Your task to perform on an android device: What's the price of the Galaxy phone on eBay? Image 0: 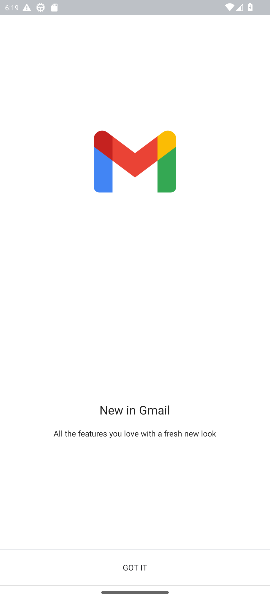
Step 0: click (140, 568)
Your task to perform on an android device: What's the price of the Galaxy phone on eBay? Image 1: 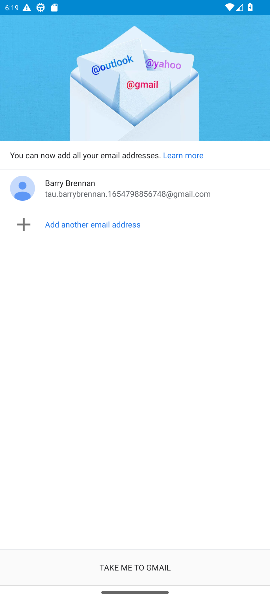
Step 1: click (139, 567)
Your task to perform on an android device: What's the price of the Galaxy phone on eBay? Image 2: 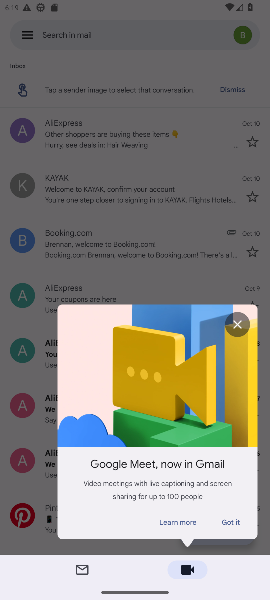
Step 2: click (240, 321)
Your task to perform on an android device: What's the price of the Galaxy phone on eBay? Image 3: 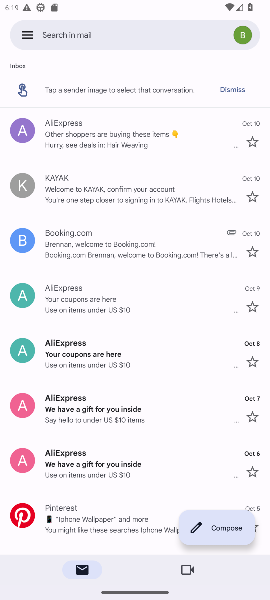
Step 3: press back button
Your task to perform on an android device: What's the price of the Galaxy phone on eBay? Image 4: 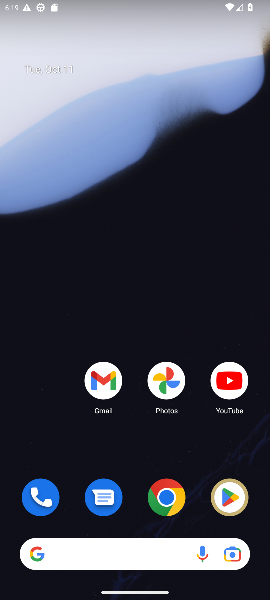
Step 4: click (118, 549)
Your task to perform on an android device: What's the price of the Galaxy phone on eBay? Image 5: 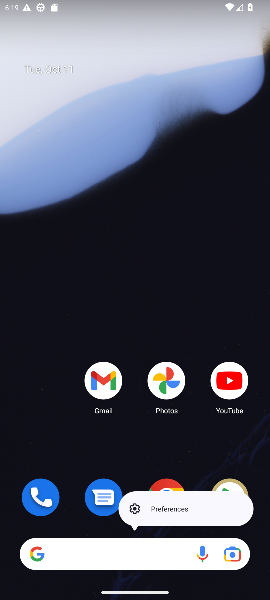
Step 5: click (84, 553)
Your task to perform on an android device: What's the price of the Galaxy phone on eBay? Image 6: 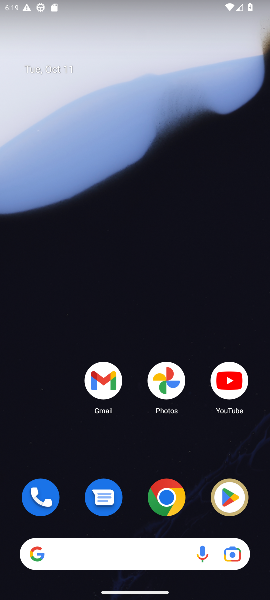
Step 6: type " the price of the Galaxy phone on eBay"
Your task to perform on an android device: What's the price of the Galaxy phone on eBay? Image 7: 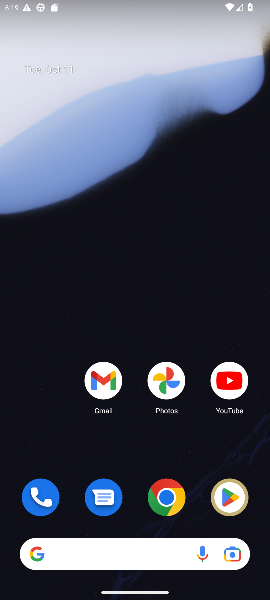
Step 7: click (159, 546)
Your task to perform on an android device: What's the price of the Galaxy phone on eBay? Image 8: 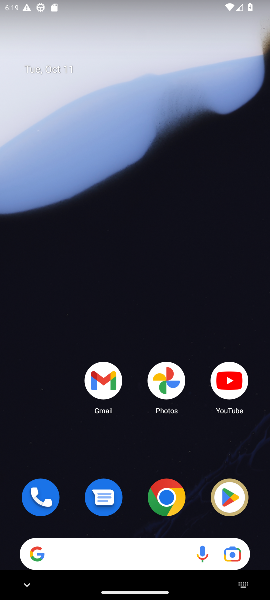
Step 8: click (159, 546)
Your task to perform on an android device: What's the price of the Galaxy phone on eBay? Image 9: 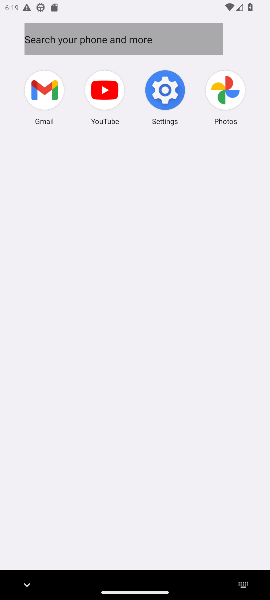
Step 9: type " the price of the Galaxy phone on eBay"
Your task to perform on an android device: What's the price of the Galaxy phone on eBay? Image 10: 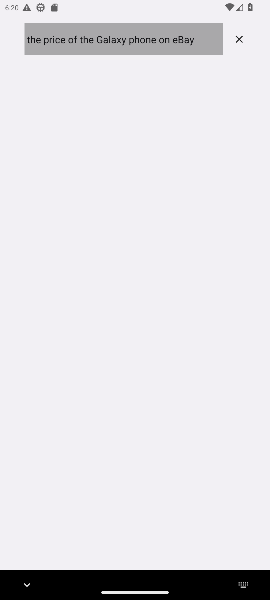
Step 10: press enter
Your task to perform on an android device: What's the price of the Galaxy phone on eBay? Image 11: 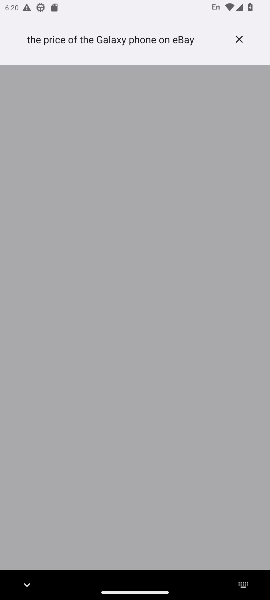
Step 11: press enter
Your task to perform on an android device: What's the price of the Galaxy phone on eBay? Image 12: 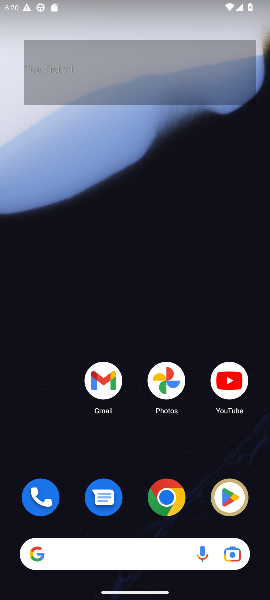
Step 12: click (93, 550)
Your task to perform on an android device: What's the price of the Galaxy phone on eBay? Image 13: 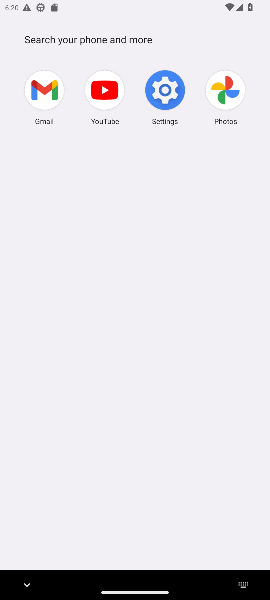
Step 13: click (117, 47)
Your task to perform on an android device: What's the price of the Galaxy phone on eBay? Image 14: 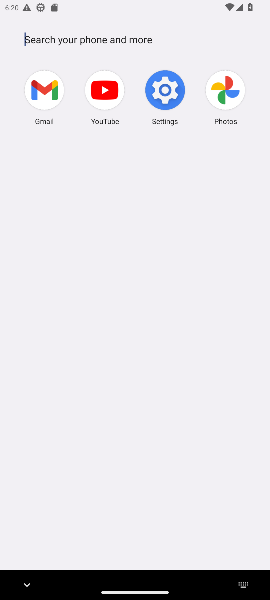
Step 14: click (117, 39)
Your task to perform on an android device: What's the price of the Galaxy phone on eBay? Image 15: 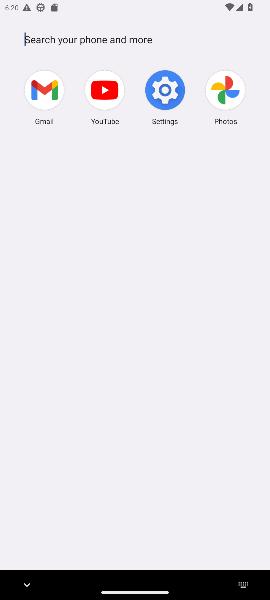
Step 15: type " the price of the Galaxy phone on eBay"
Your task to perform on an android device: What's the price of the Galaxy phone on eBay? Image 16: 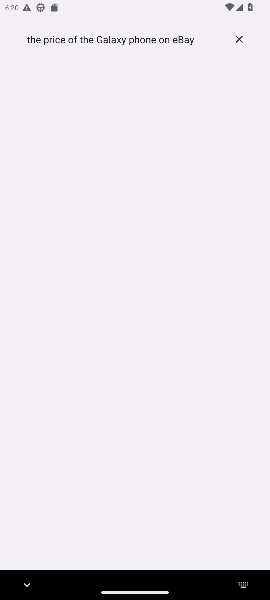
Step 16: press enter
Your task to perform on an android device: What's the price of the Galaxy phone on eBay? Image 17: 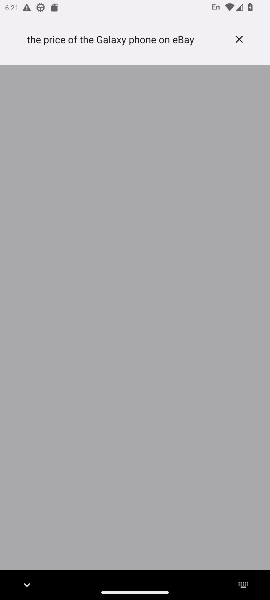
Step 17: task complete